Your task to perform on an android device: turn off translation in the chrome app Image 0: 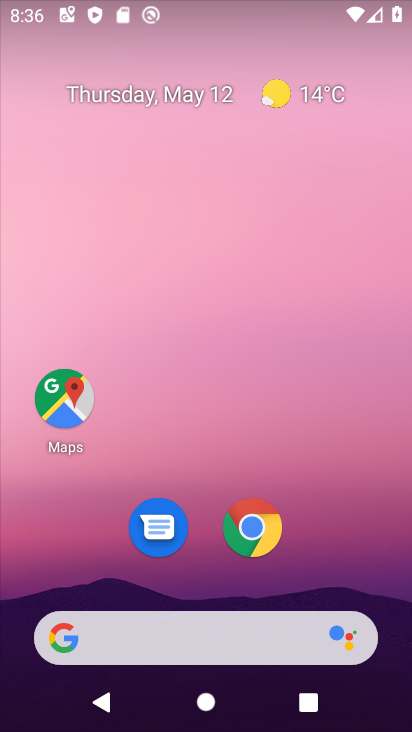
Step 0: click (279, 533)
Your task to perform on an android device: turn off translation in the chrome app Image 1: 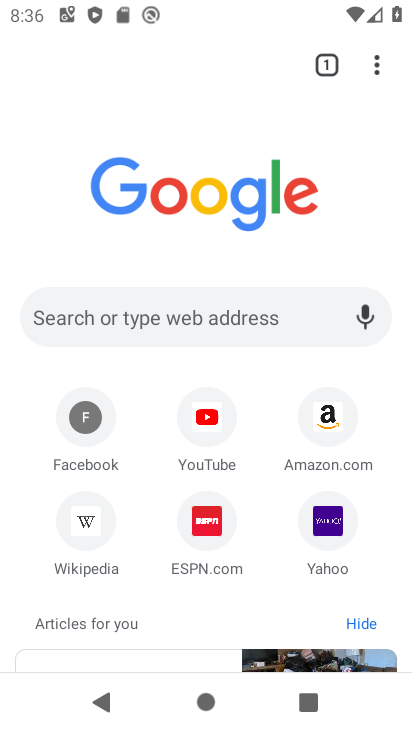
Step 1: click (375, 75)
Your task to perform on an android device: turn off translation in the chrome app Image 2: 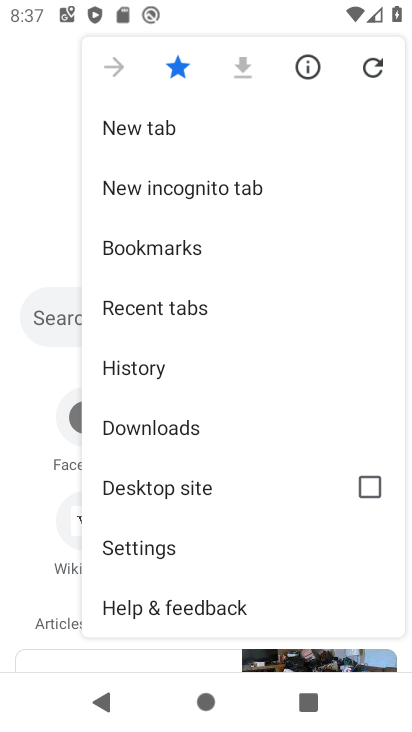
Step 2: click (245, 535)
Your task to perform on an android device: turn off translation in the chrome app Image 3: 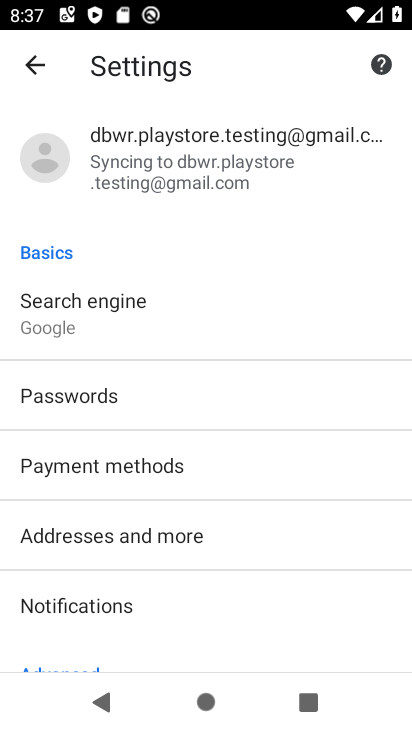
Step 3: drag from (245, 594) to (267, 181)
Your task to perform on an android device: turn off translation in the chrome app Image 4: 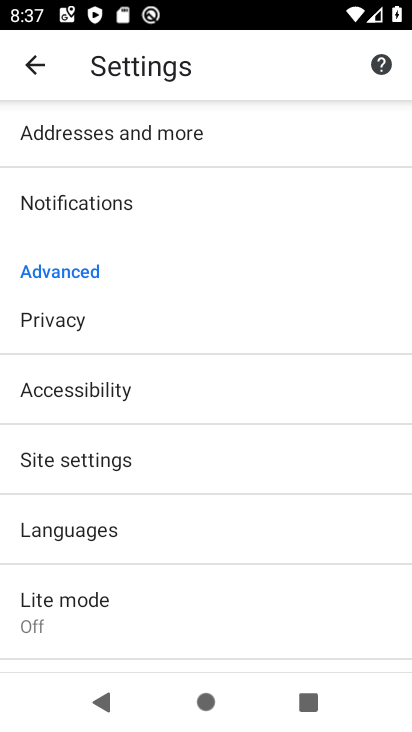
Step 4: drag from (205, 594) to (209, 460)
Your task to perform on an android device: turn off translation in the chrome app Image 5: 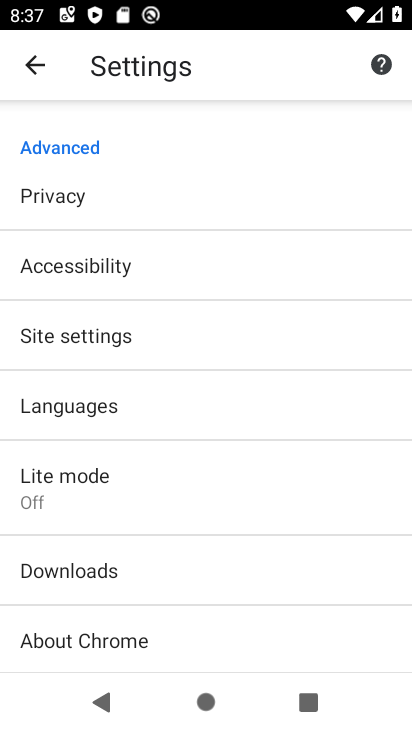
Step 5: click (270, 416)
Your task to perform on an android device: turn off translation in the chrome app Image 6: 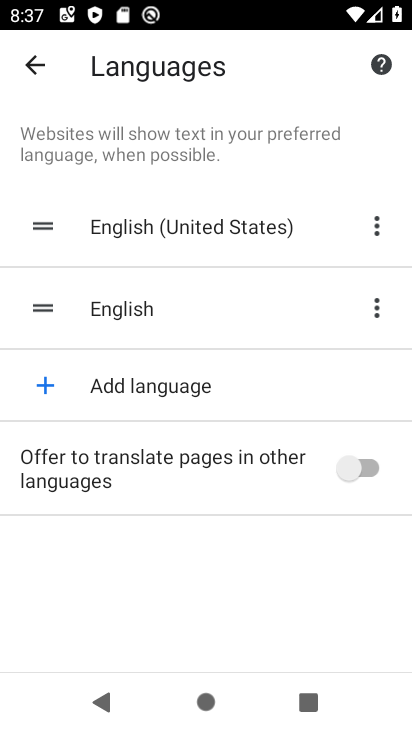
Step 6: click (375, 472)
Your task to perform on an android device: turn off translation in the chrome app Image 7: 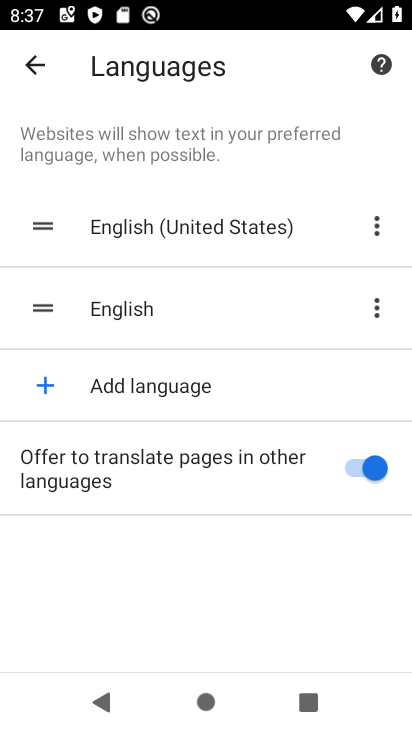
Step 7: task complete